Your task to perform on an android device: turn pop-ups off in chrome Image 0: 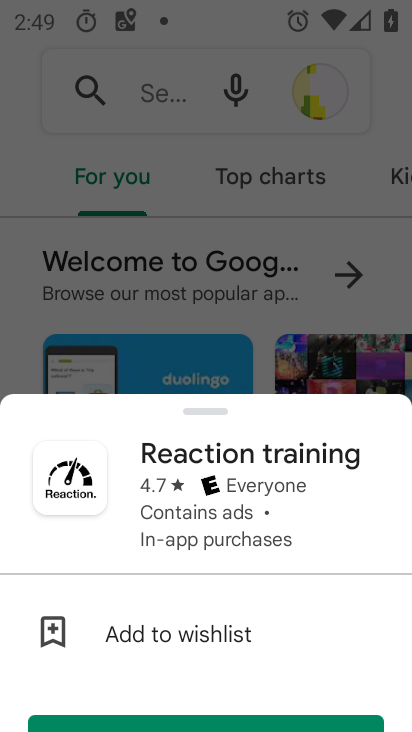
Step 0: press home button
Your task to perform on an android device: turn pop-ups off in chrome Image 1: 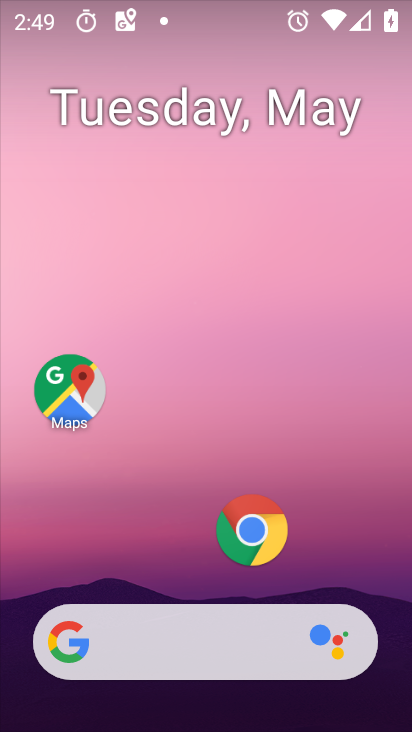
Step 1: click (253, 535)
Your task to perform on an android device: turn pop-ups off in chrome Image 2: 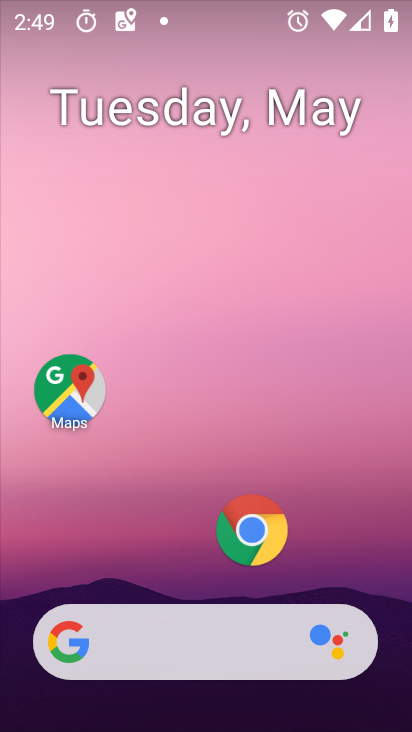
Step 2: click (221, 522)
Your task to perform on an android device: turn pop-ups off in chrome Image 3: 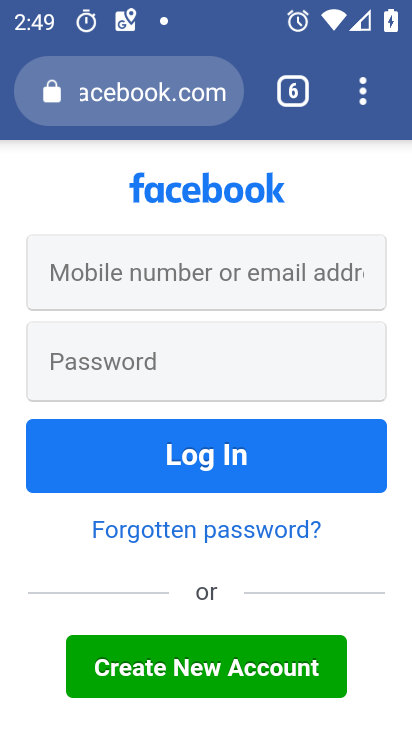
Step 3: click (373, 95)
Your task to perform on an android device: turn pop-ups off in chrome Image 4: 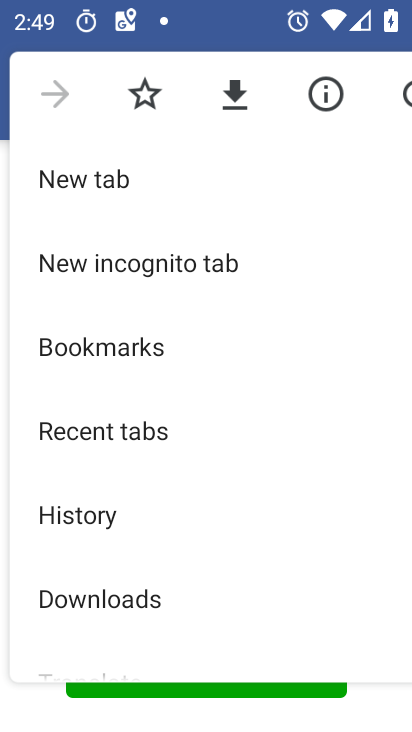
Step 4: drag from (214, 579) to (165, 104)
Your task to perform on an android device: turn pop-ups off in chrome Image 5: 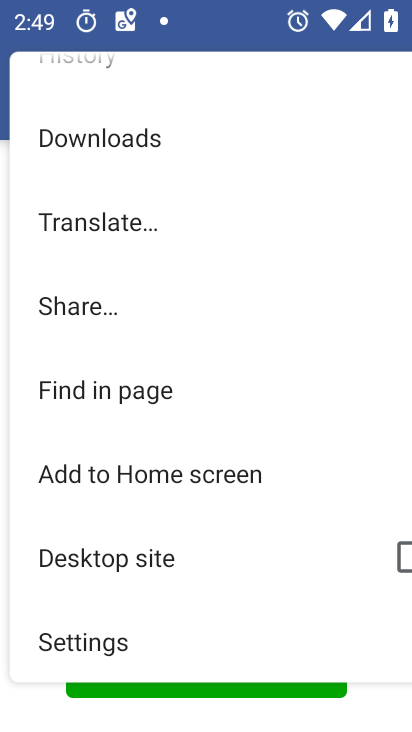
Step 5: click (102, 637)
Your task to perform on an android device: turn pop-ups off in chrome Image 6: 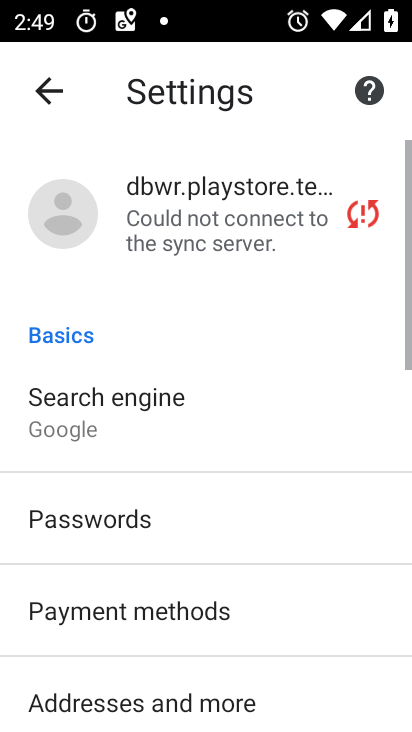
Step 6: drag from (150, 547) to (51, 7)
Your task to perform on an android device: turn pop-ups off in chrome Image 7: 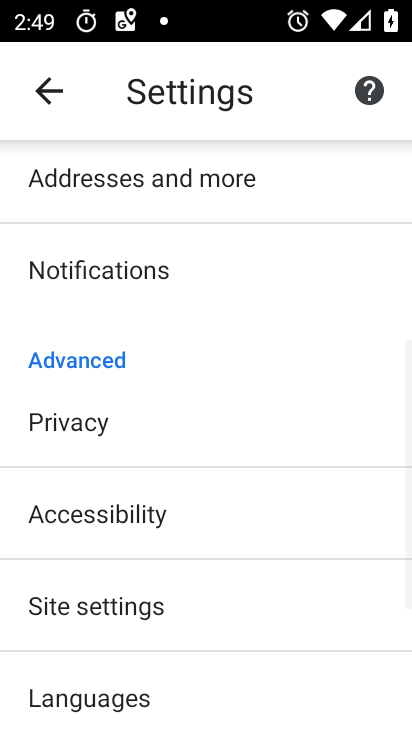
Step 7: click (116, 597)
Your task to perform on an android device: turn pop-ups off in chrome Image 8: 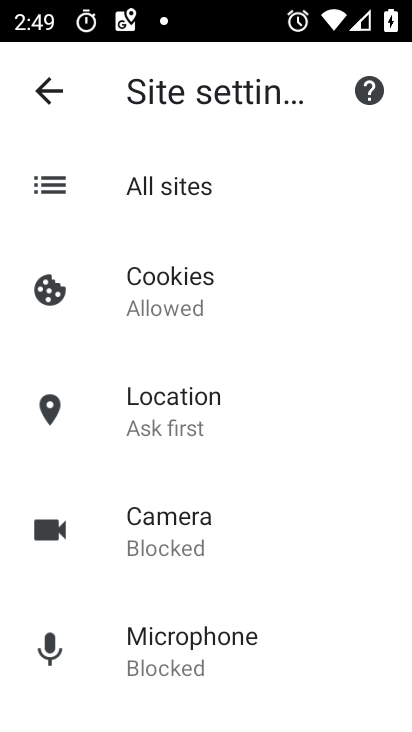
Step 8: drag from (117, 592) to (88, 78)
Your task to perform on an android device: turn pop-ups off in chrome Image 9: 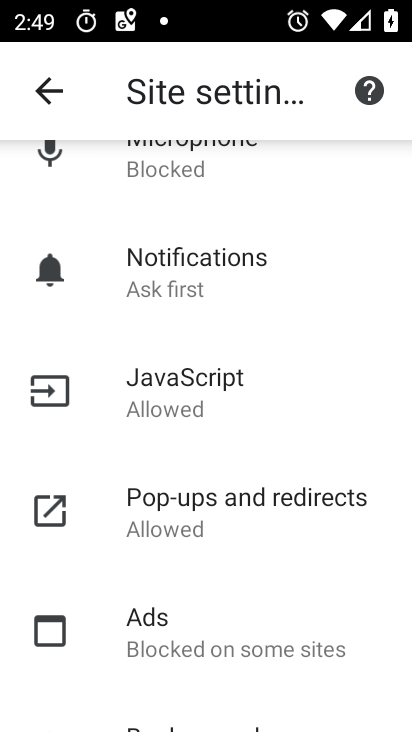
Step 9: click (185, 522)
Your task to perform on an android device: turn pop-ups off in chrome Image 10: 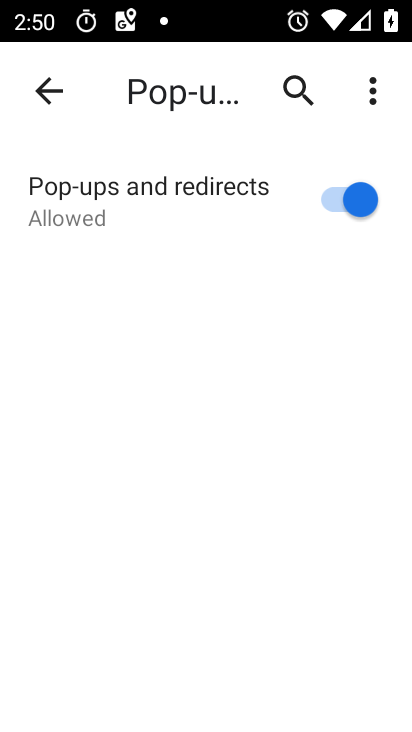
Step 10: click (338, 195)
Your task to perform on an android device: turn pop-ups off in chrome Image 11: 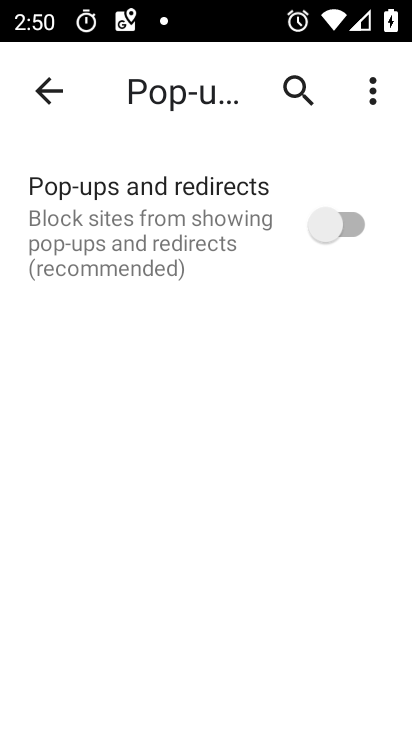
Step 11: task complete